Your task to perform on an android device: open app "Reddit" (install if not already installed) and go to login screen Image 0: 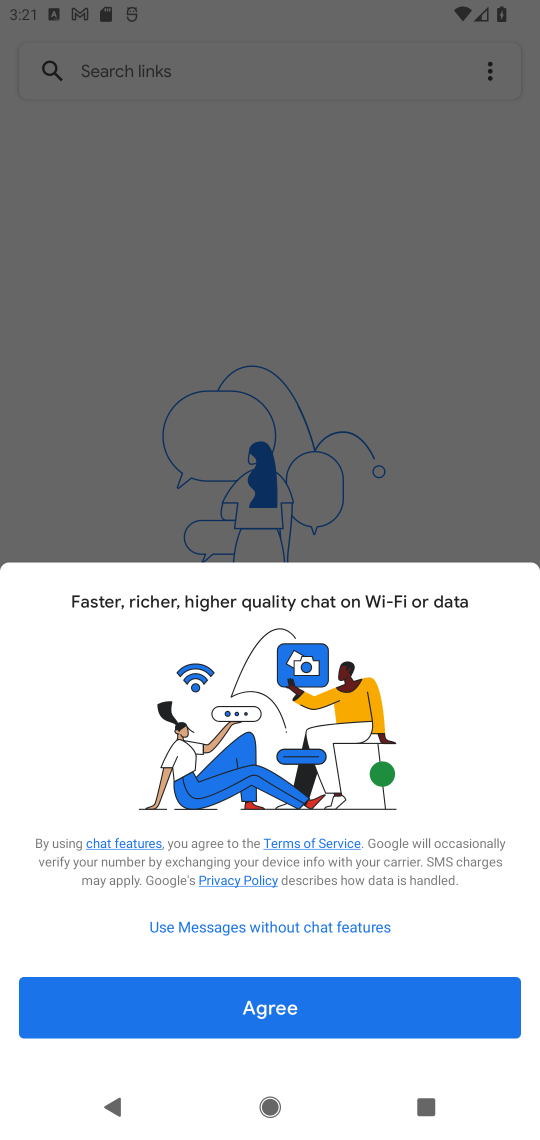
Step 0: press home button
Your task to perform on an android device: open app "Reddit" (install if not already installed) and go to login screen Image 1: 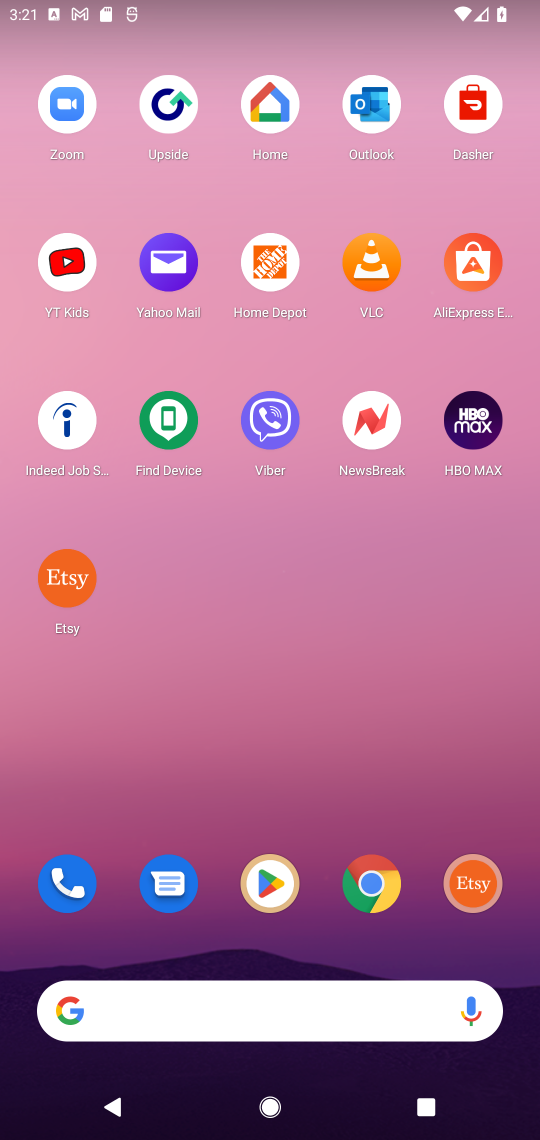
Step 1: drag from (239, 1002) to (144, 265)
Your task to perform on an android device: open app "Reddit" (install if not already installed) and go to login screen Image 2: 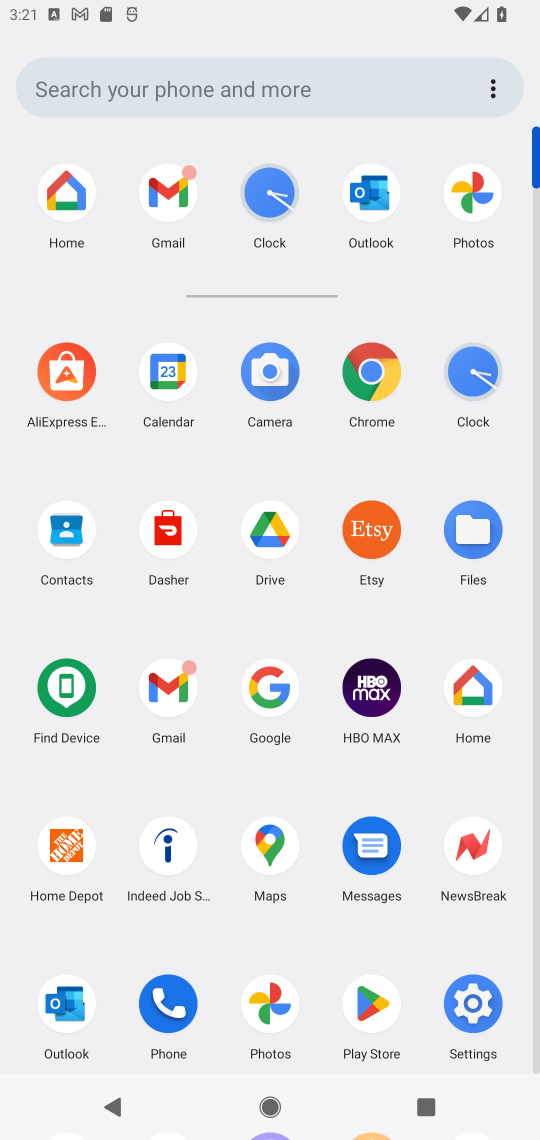
Step 2: click (357, 1010)
Your task to perform on an android device: open app "Reddit" (install if not already installed) and go to login screen Image 3: 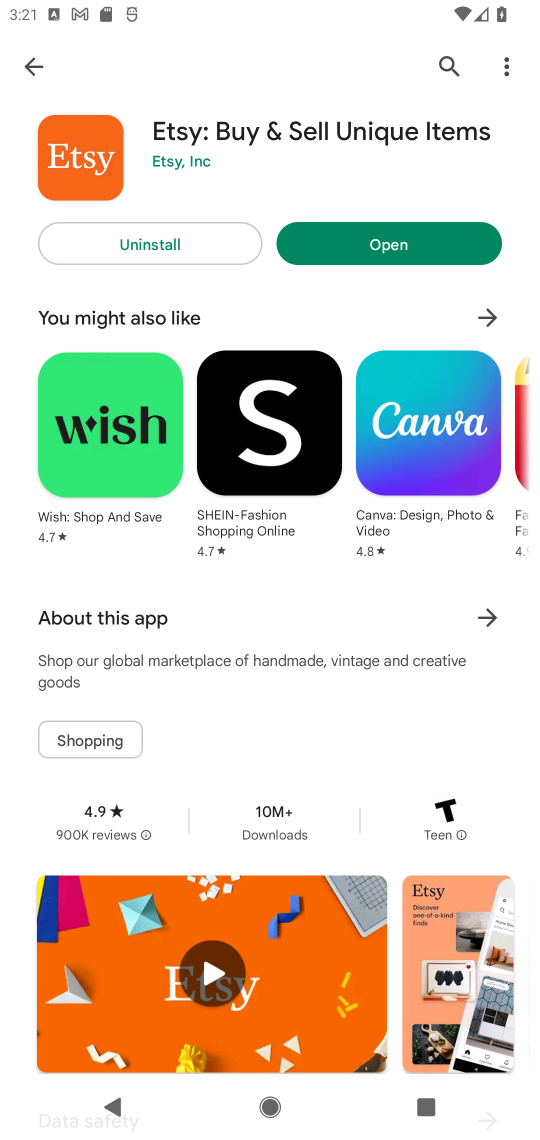
Step 3: type "Reddit"
Your task to perform on an android device: open app "Reddit" (install if not already installed) and go to login screen Image 4: 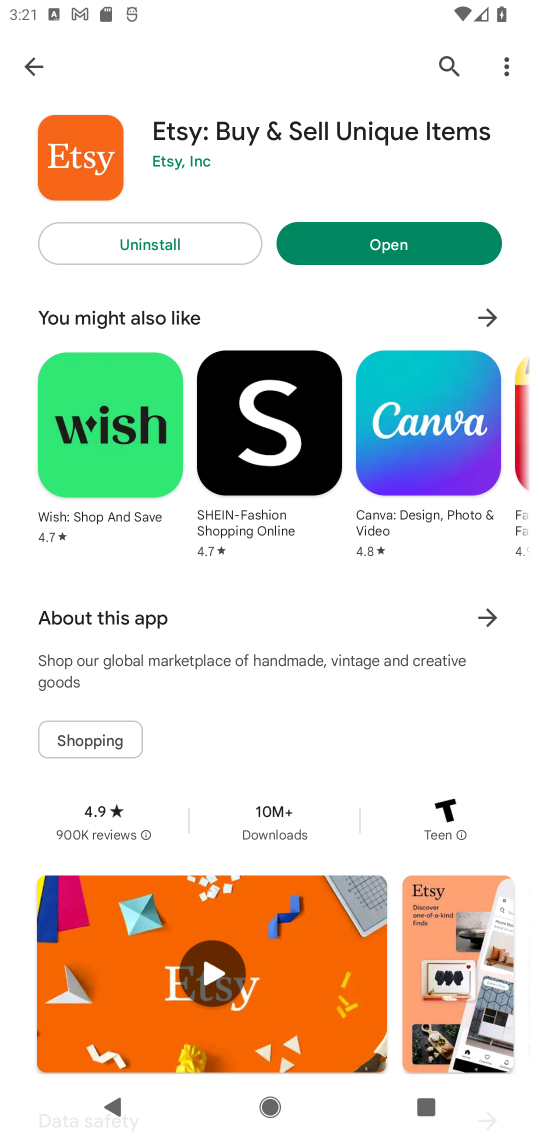
Step 4: click (444, 44)
Your task to perform on an android device: open app "Reddit" (install if not already installed) and go to login screen Image 5: 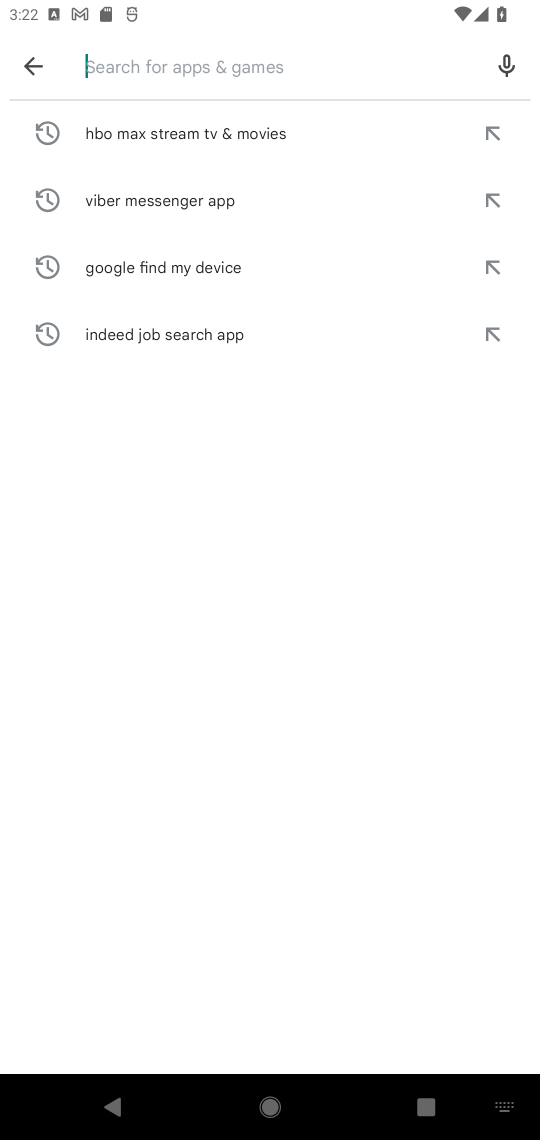
Step 5: type "Reddit"
Your task to perform on an android device: open app "Reddit" (install if not already installed) and go to login screen Image 6: 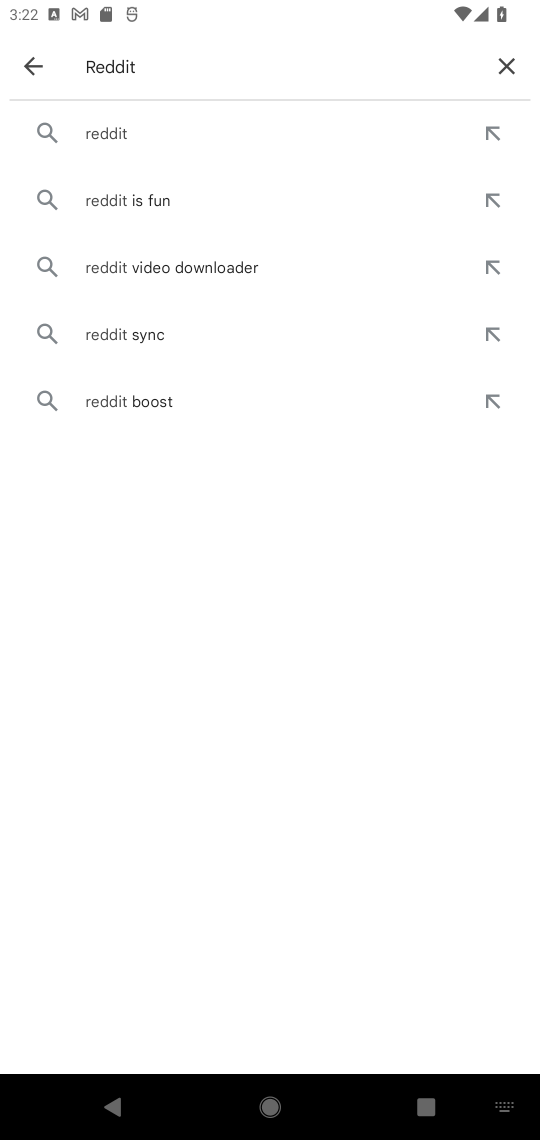
Step 6: click (118, 130)
Your task to perform on an android device: open app "Reddit" (install if not already installed) and go to login screen Image 7: 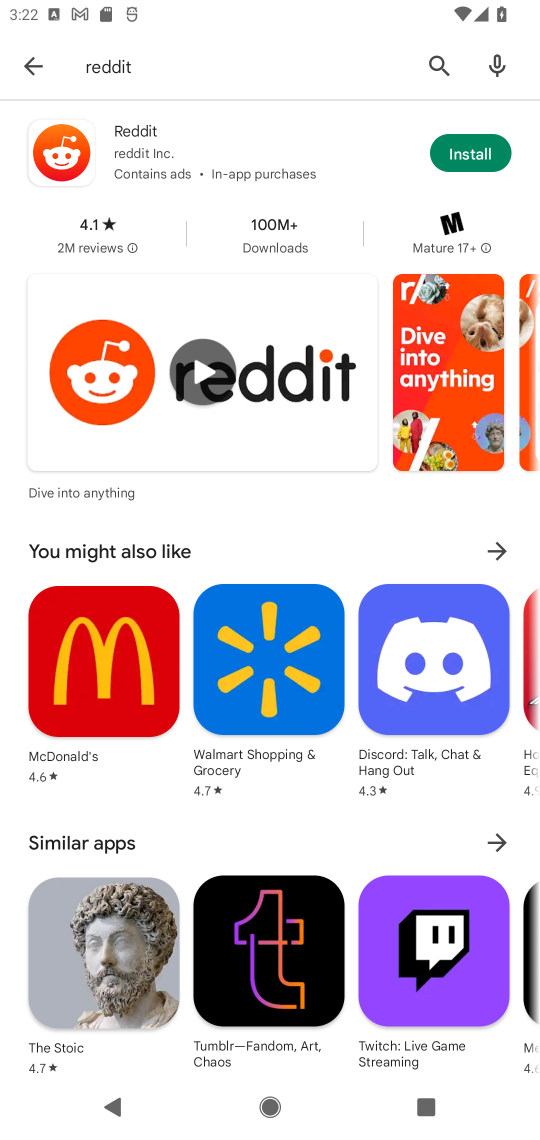
Step 7: click (438, 149)
Your task to perform on an android device: open app "Reddit" (install if not already installed) and go to login screen Image 8: 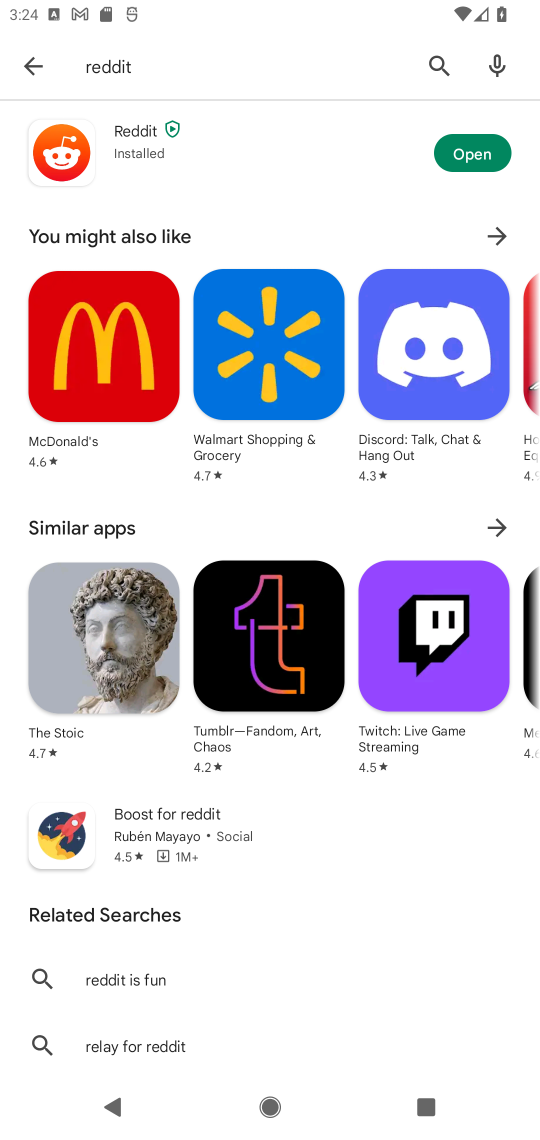
Step 8: click (466, 153)
Your task to perform on an android device: open app "Reddit" (install if not already installed) and go to login screen Image 9: 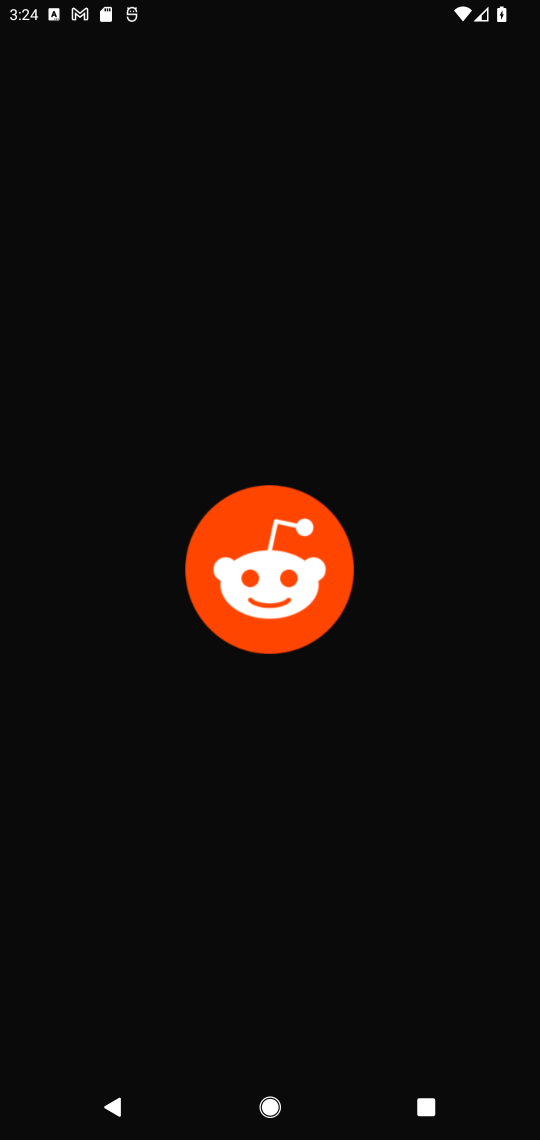
Step 9: task complete